Your task to perform on an android device: set the stopwatch Image 0: 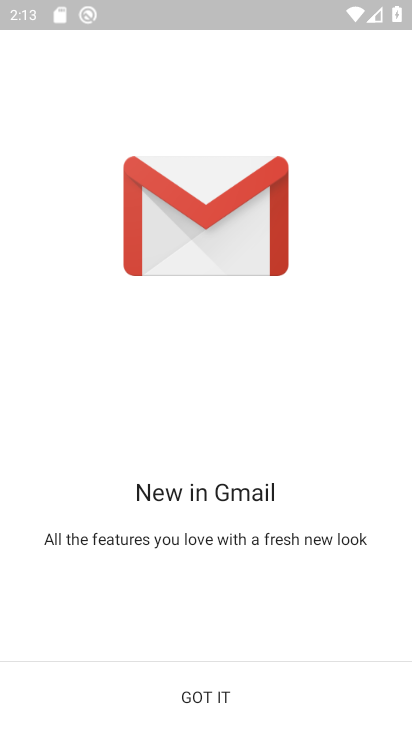
Step 0: press home button
Your task to perform on an android device: set the stopwatch Image 1: 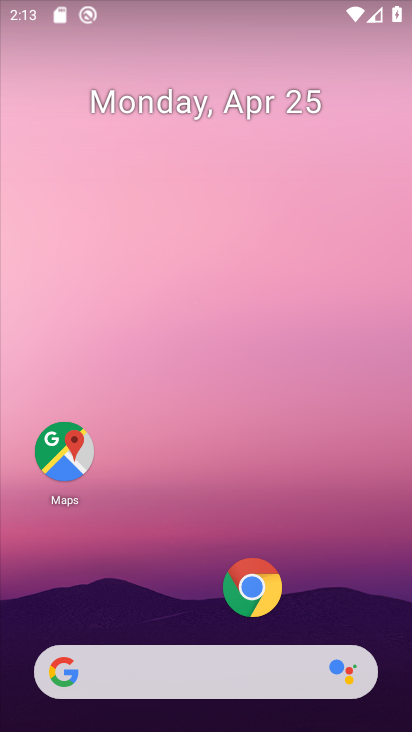
Step 1: drag from (191, 625) to (214, 178)
Your task to perform on an android device: set the stopwatch Image 2: 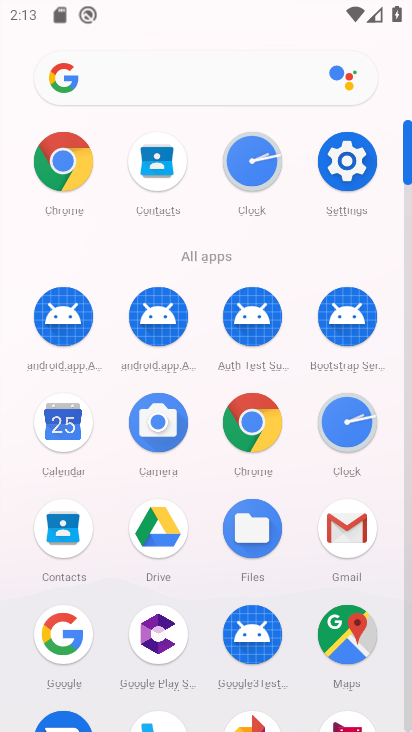
Step 2: click (346, 421)
Your task to perform on an android device: set the stopwatch Image 3: 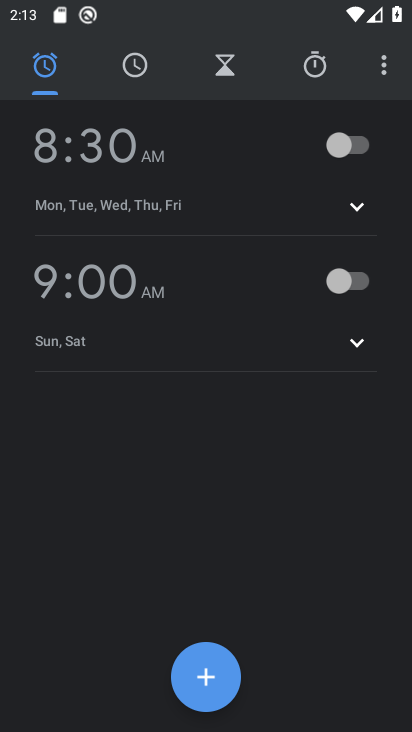
Step 3: click (314, 57)
Your task to perform on an android device: set the stopwatch Image 4: 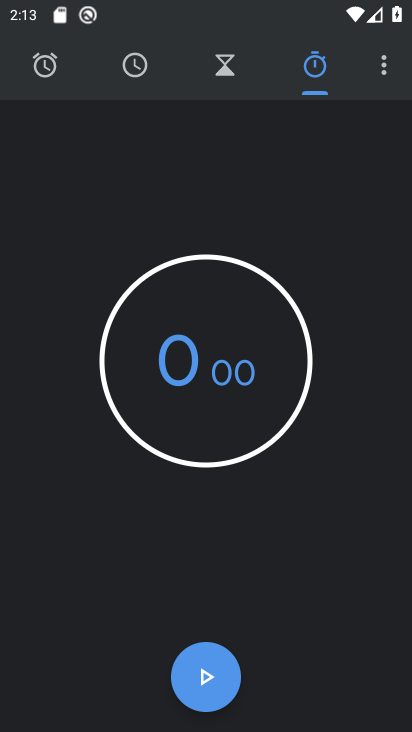
Step 4: click (202, 673)
Your task to perform on an android device: set the stopwatch Image 5: 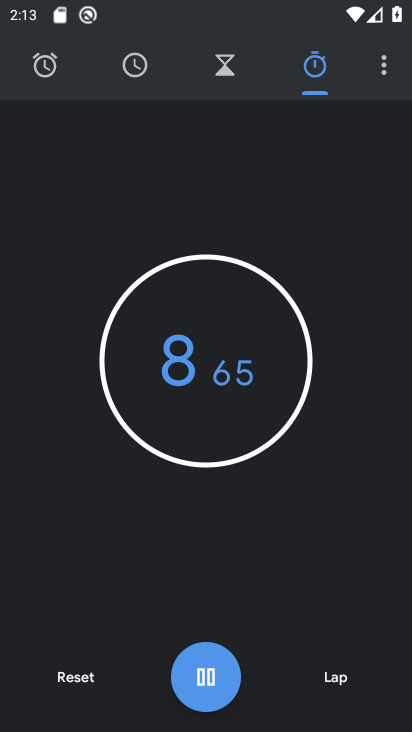
Step 5: task complete